Your task to perform on an android device: change the upload size in google photos Image 0: 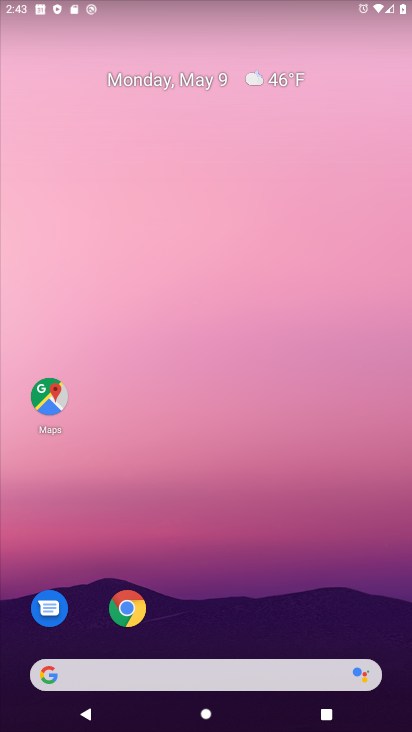
Step 0: drag from (241, 434) to (263, 301)
Your task to perform on an android device: change the upload size in google photos Image 1: 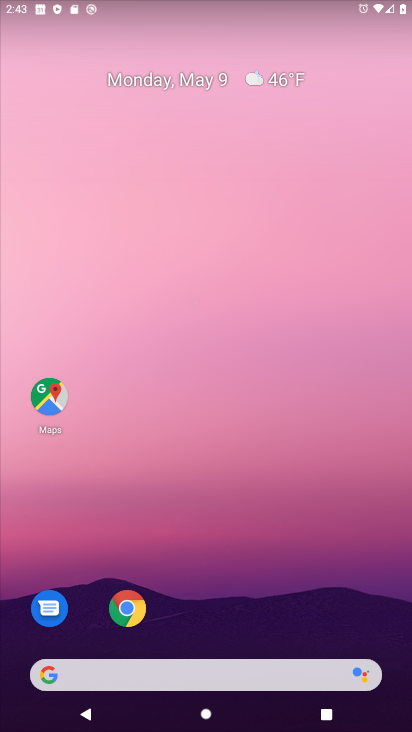
Step 1: drag from (247, 613) to (317, 290)
Your task to perform on an android device: change the upload size in google photos Image 2: 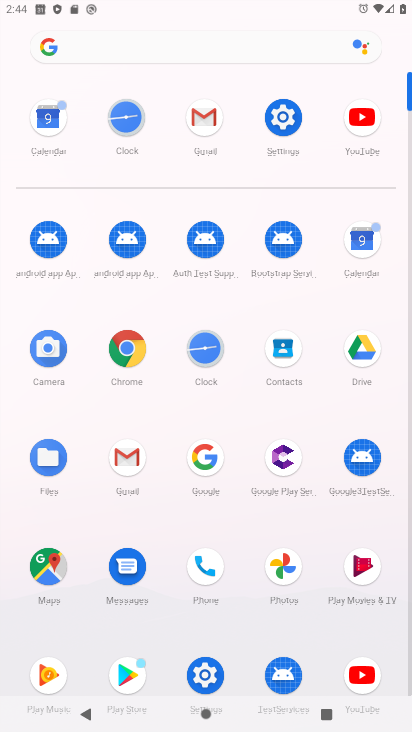
Step 2: click (286, 574)
Your task to perform on an android device: change the upload size in google photos Image 3: 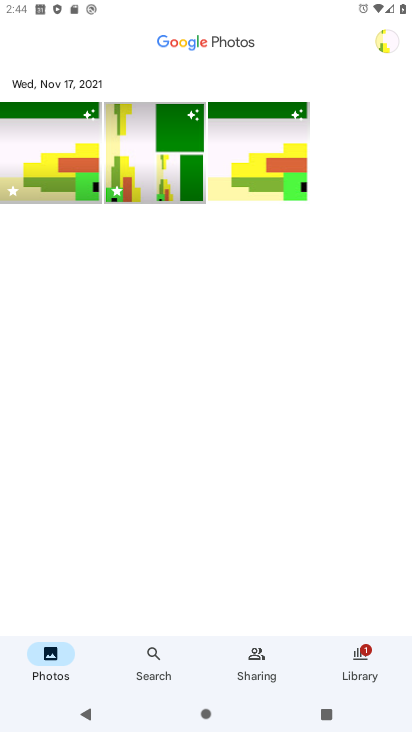
Step 3: click (356, 664)
Your task to perform on an android device: change the upload size in google photos Image 4: 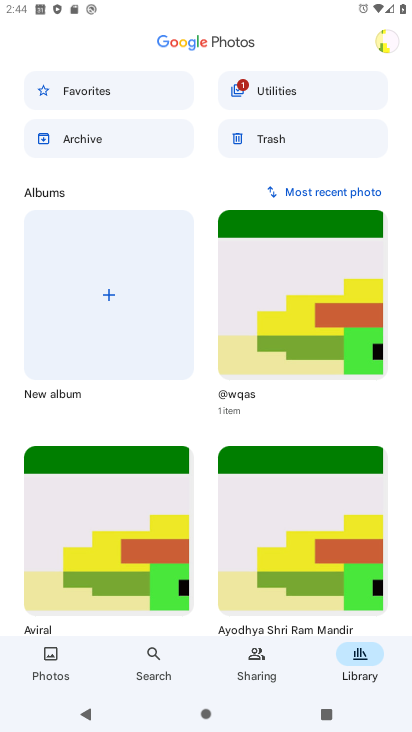
Step 4: click (380, 38)
Your task to perform on an android device: change the upload size in google photos Image 5: 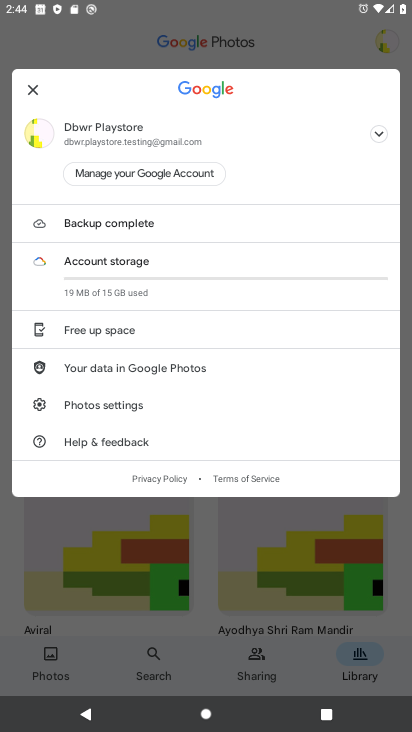
Step 5: click (113, 411)
Your task to perform on an android device: change the upload size in google photos Image 6: 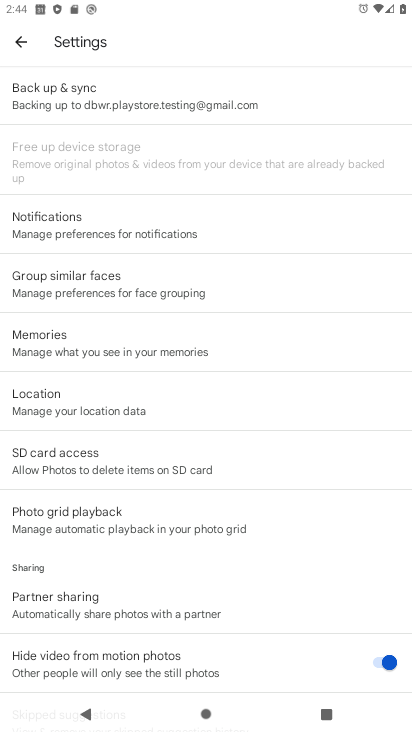
Step 6: click (93, 100)
Your task to perform on an android device: change the upload size in google photos Image 7: 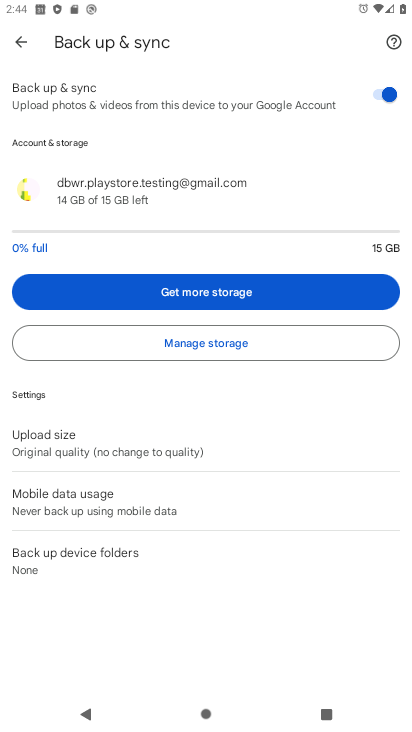
Step 7: click (105, 437)
Your task to perform on an android device: change the upload size in google photos Image 8: 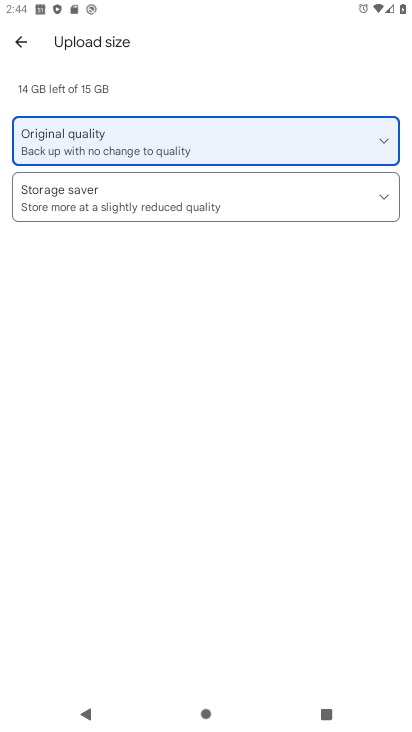
Step 8: click (252, 127)
Your task to perform on an android device: change the upload size in google photos Image 9: 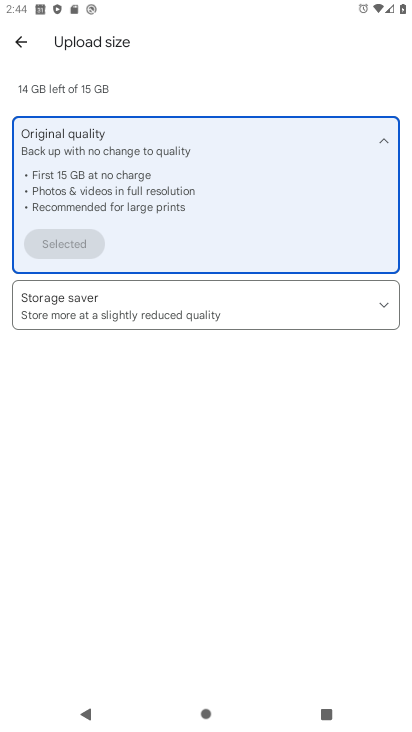
Step 9: click (130, 304)
Your task to perform on an android device: change the upload size in google photos Image 10: 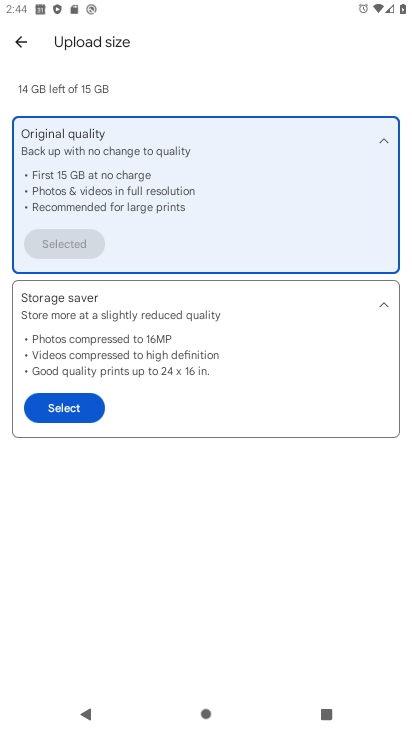
Step 10: click (69, 405)
Your task to perform on an android device: change the upload size in google photos Image 11: 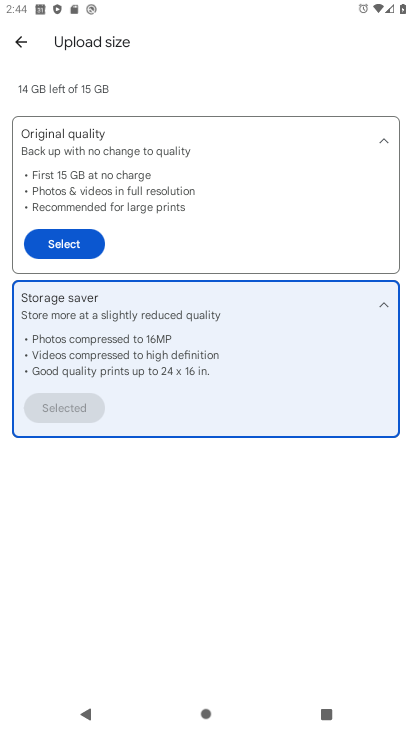
Step 11: task complete